Your task to perform on an android device: Open network settings Image 0: 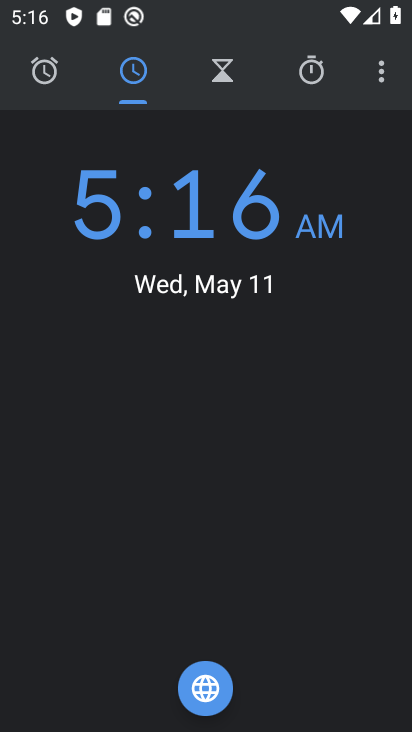
Step 0: press home button
Your task to perform on an android device: Open network settings Image 1: 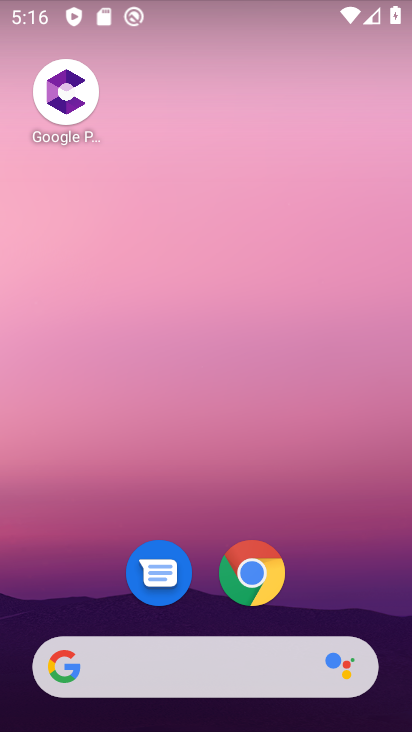
Step 1: drag from (302, 602) to (253, 261)
Your task to perform on an android device: Open network settings Image 2: 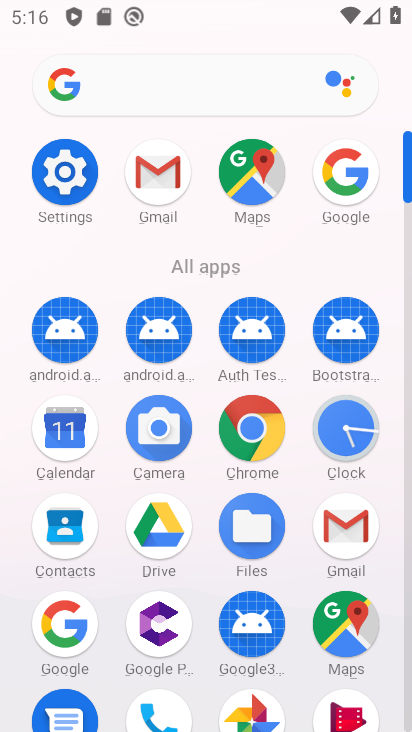
Step 2: click (65, 213)
Your task to perform on an android device: Open network settings Image 3: 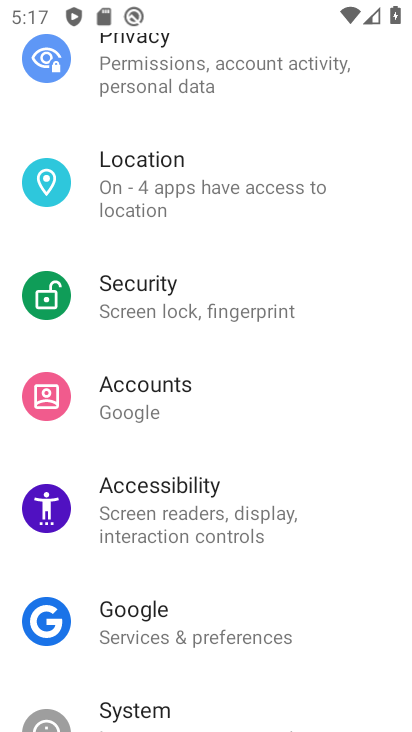
Step 3: drag from (213, 148) to (229, 446)
Your task to perform on an android device: Open network settings Image 4: 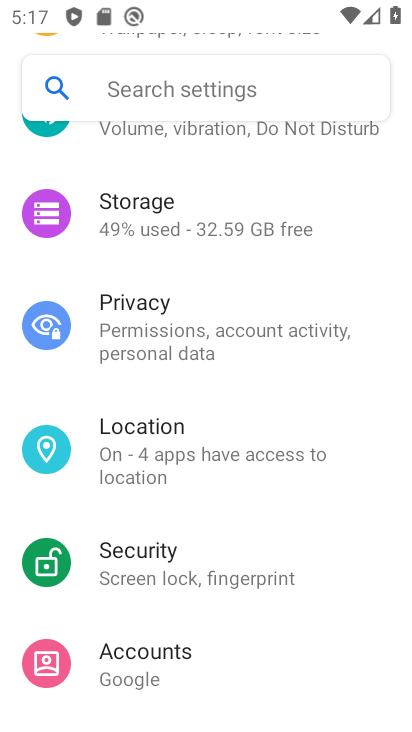
Step 4: drag from (217, 256) to (217, 683)
Your task to perform on an android device: Open network settings Image 5: 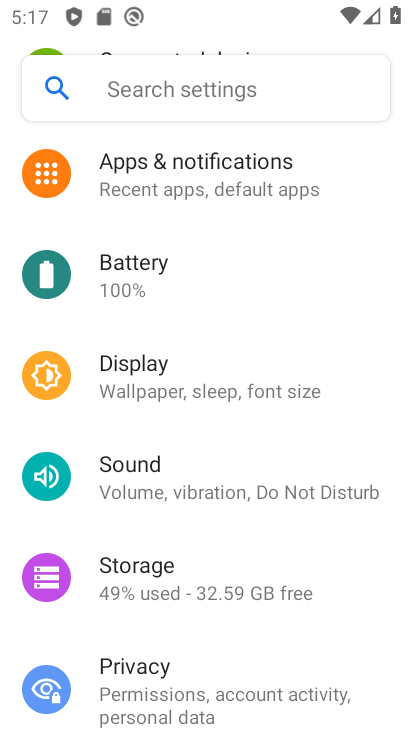
Step 5: drag from (232, 338) to (225, 722)
Your task to perform on an android device: Open network settings Image 6: 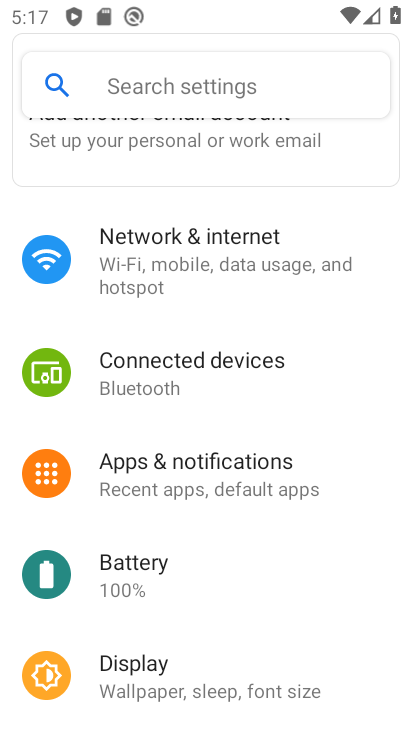
Step 6: click (175, 286)
Your task to perform on an android device: Open network settings Image 7: 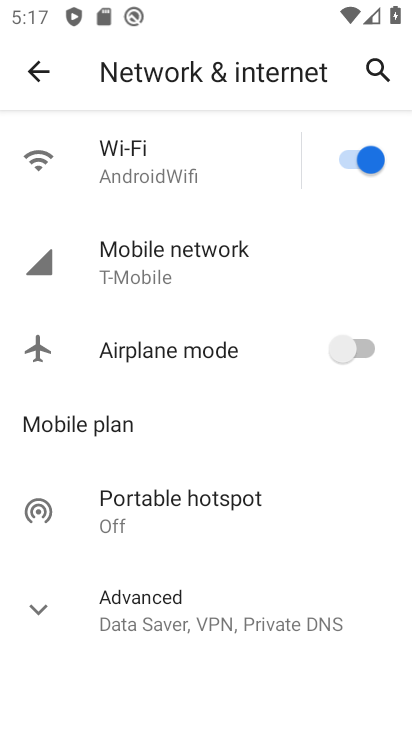
Step 7: task complete